Your task to perform on an android device: find which apps use the phone's location Image 0: 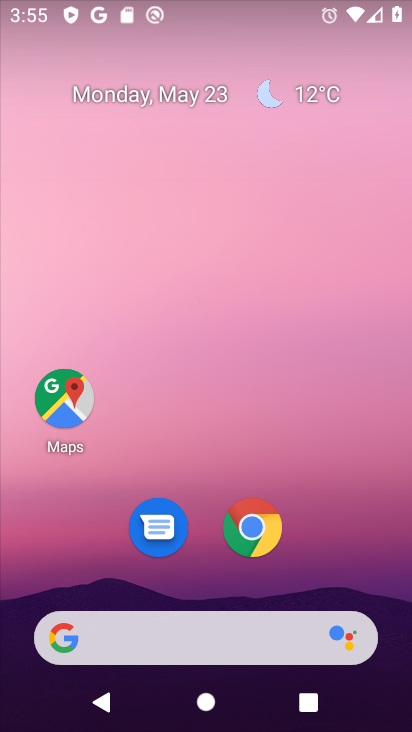
Step 0: press home button
Your task to perform on an android device: find which apps use the phone's location Image 1: 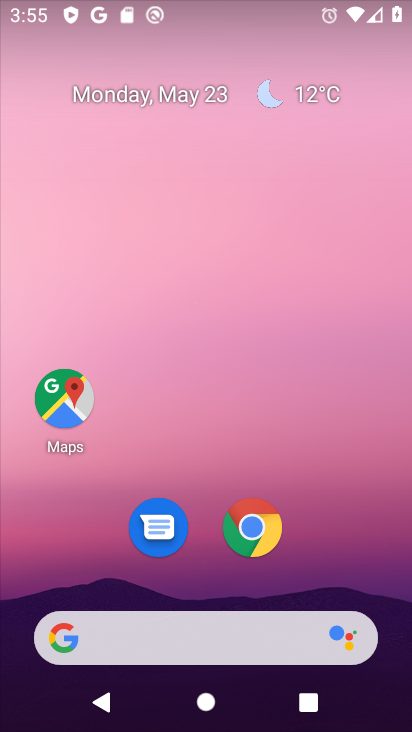
Step 1: drag from (214, 586) to (225, 59)
Your task to perform on an android device: find which apps use the phone's location Image 2: 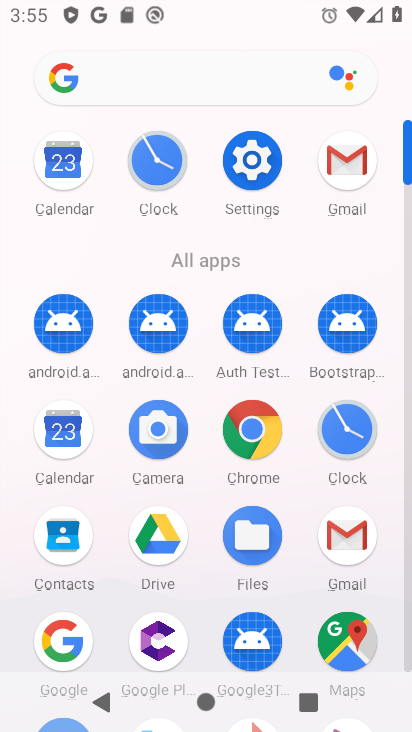
Step 2: drag from (204, 611) to (236, 112)
Your task to perform on an android device: find which apps use the phone's location Image 3: 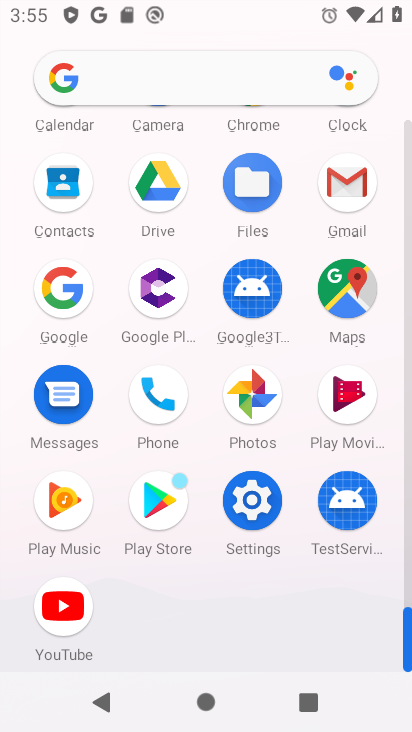
Step 3: click (249, 494)
Your task to perform on an android device: find which apps use the phone's location Image 4: 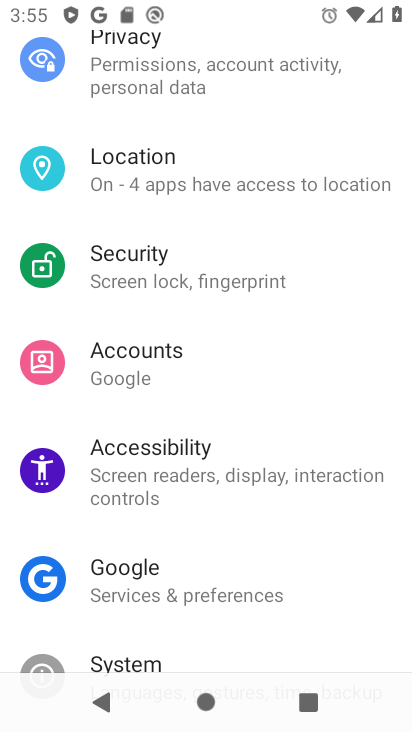
Step 4: click (188, 156)
Your task to perform on an android device: find which apps use the phone's location Image 5: 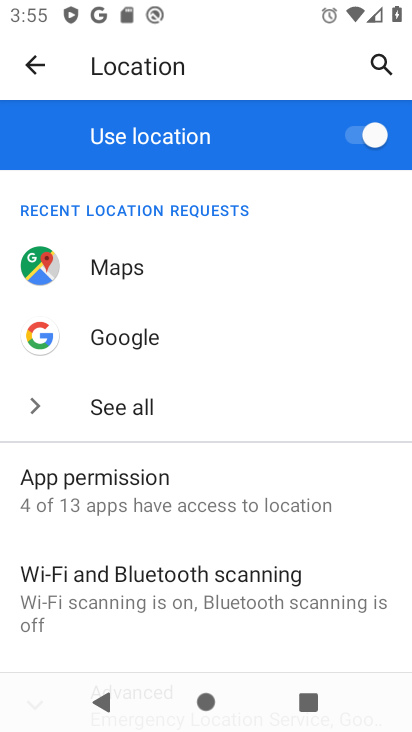
Step 5: click (178, 474)
Your task to perform on an android device: find which apps use the phone's location Image 6: 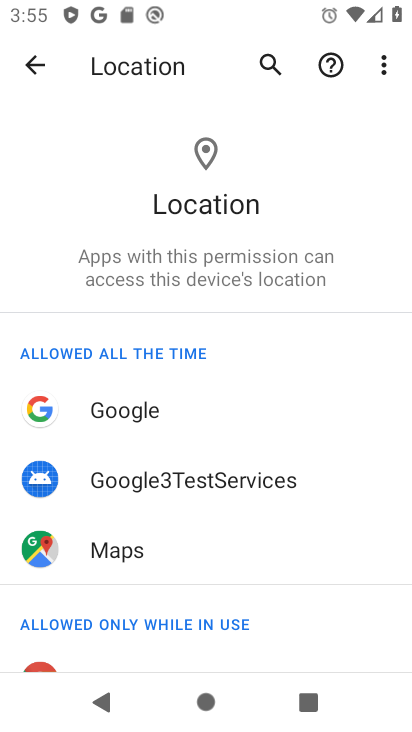
Step 6: task complete